Your task to perform on an android device: Open Chrome and go to settings Image 0: 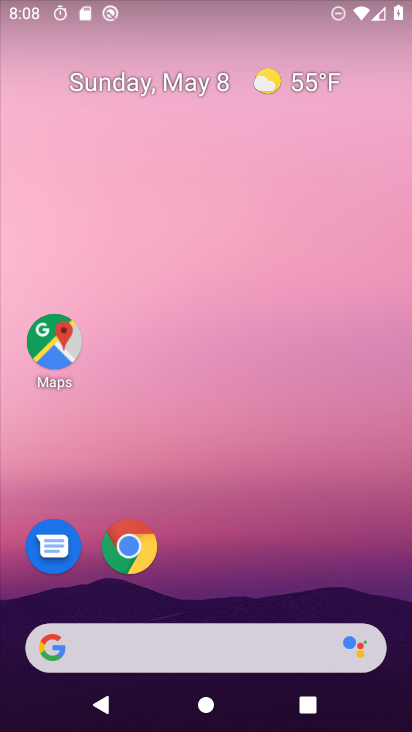
Step 0: click (127, 550)
Your task to perform on an android device: Open Chrome and go to settings Image 1: 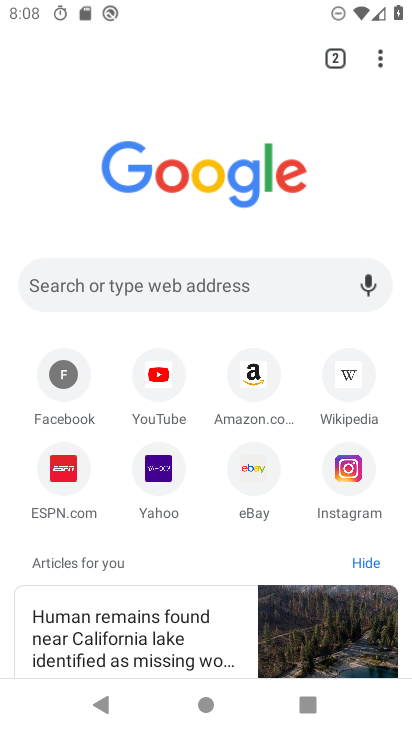
Step 1: click (377, 57)
Your task to perform on an android device: Open Chrome and go to settings Image 2: 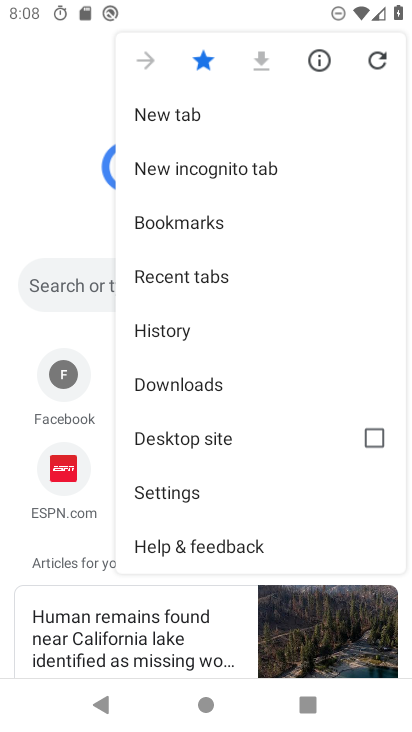
Step 2: click (202, 494)
Your task to perform on an android device: Open Chrome and go to settings Image 3: 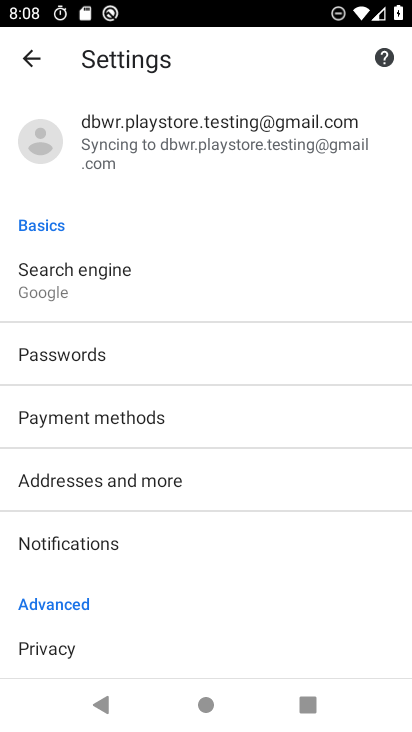
Step 3: task complete